Your task to perform on an android device: Search for vegetarian restaurants on Maps Image 0: 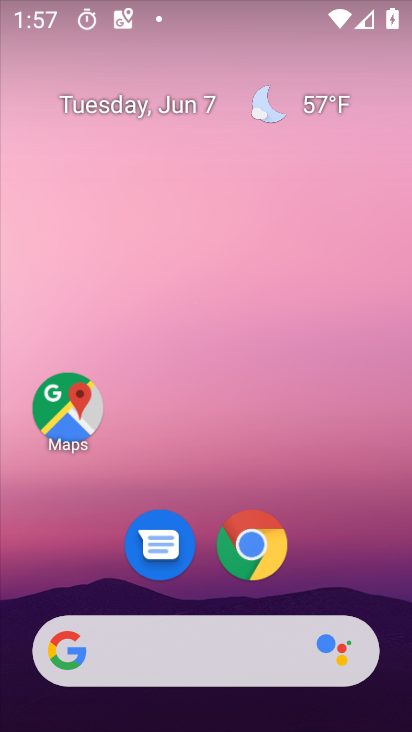
Step 0: click (60, 420)
Your task to perform on an android device: Search for vegetarian restaurants on Maps Image 1: 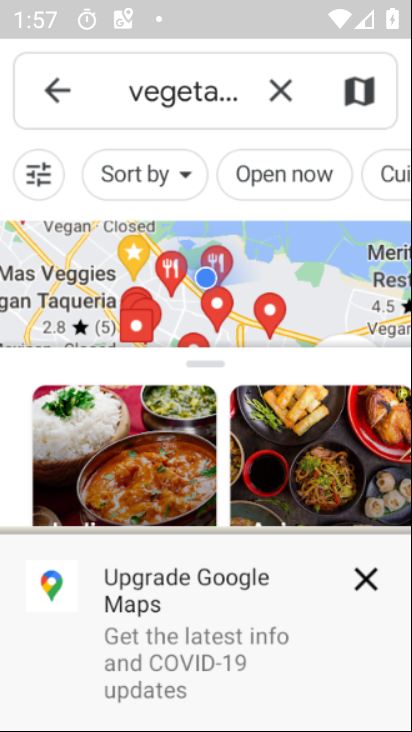
Step 1: task complete